Your task to perform on an android device: Open Yahoo.com Image 0: 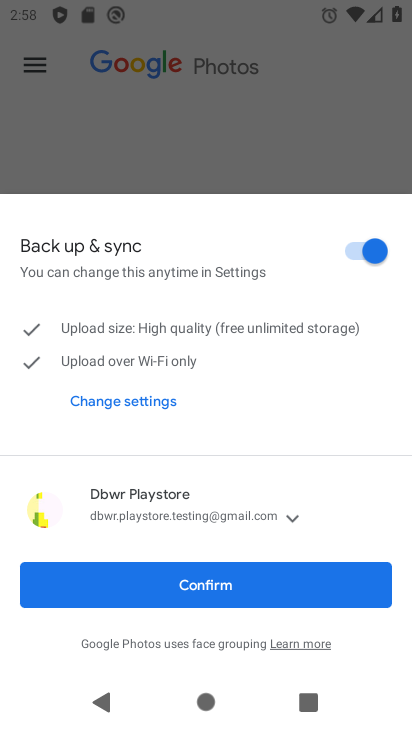
Step 0: click (199, 606)
Your task to perform on an android device: Open Yahoo.com Image 1: 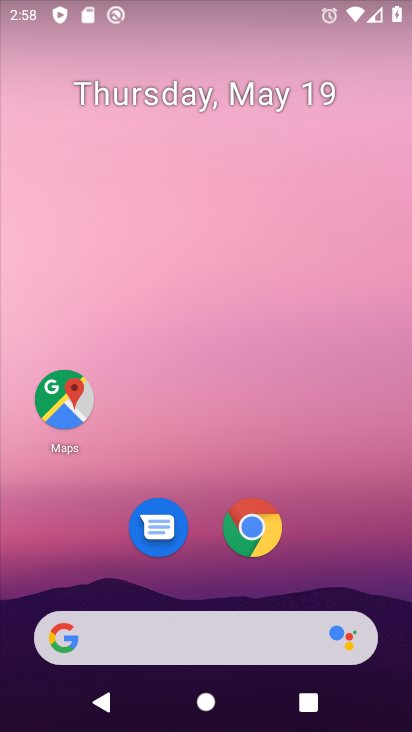
Step 1: click (257, 535)
Your task to perform on an android device: Open Yahoo.com Image 2: 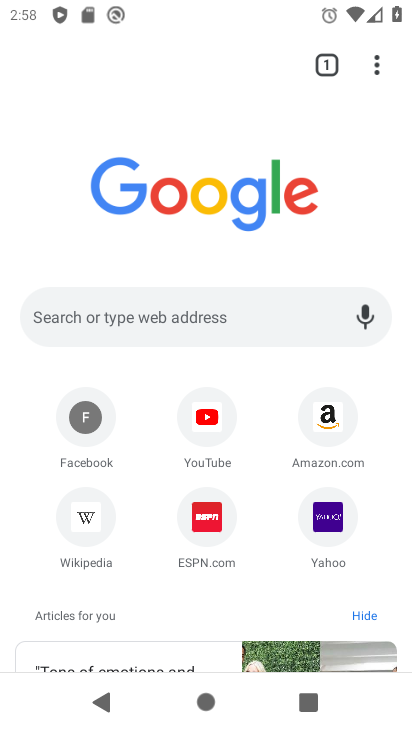
Step 2: click (321, 526)
Your task to perform on an android device: Open Yahoo.com Image 3: 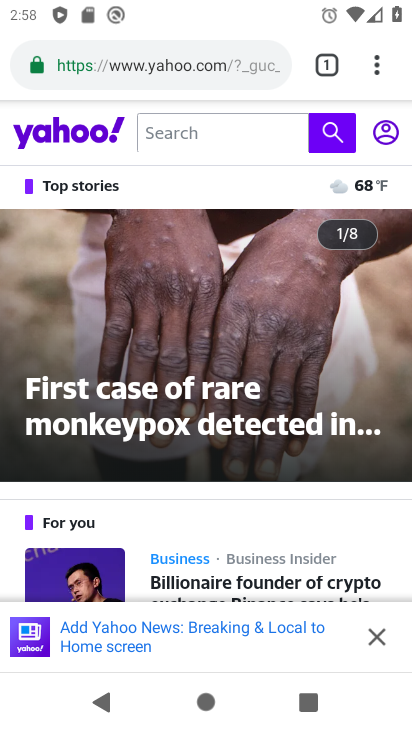
Step 3: task complete